Your task to perform on an android device: toggle pop-ups in chrome Image 0: 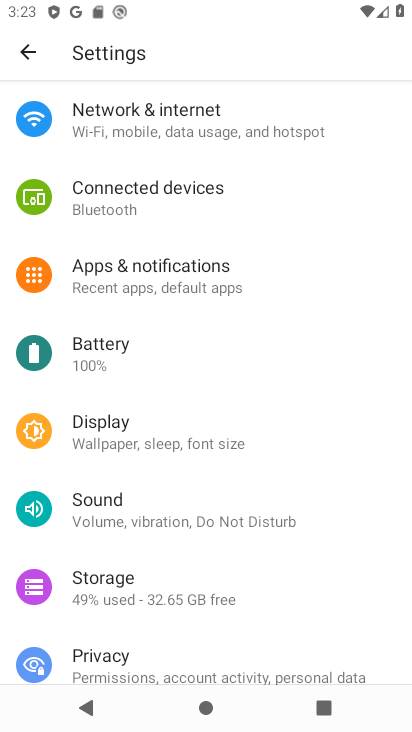
Step 0: press home button
Your task to perform on an android device: toggle pop-ups in chrome Image 1: 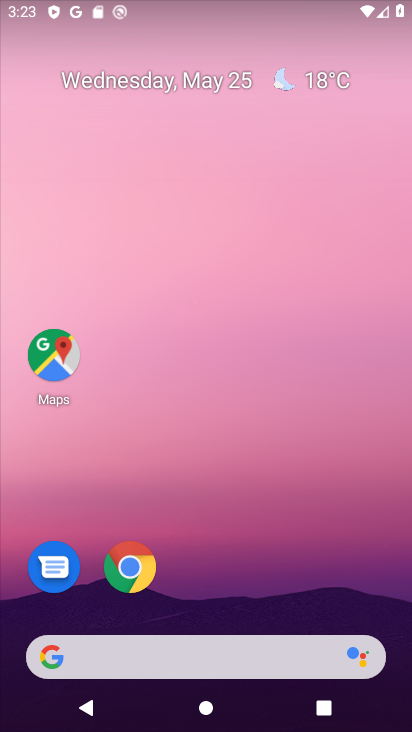
Step 1: drag from (363, 568) to (341, 74)
Your task to perform on an android device: toggle pop-ups in chrome Image 2: 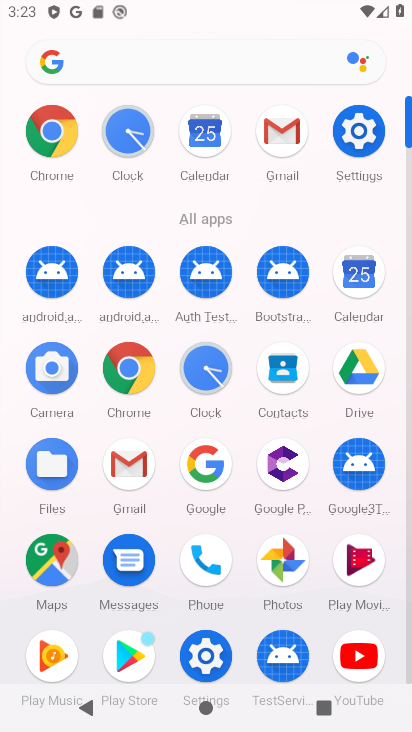
Step 2: click (138, 385)
Your task to perform on an android device: toggle pop-ups in chrome Image 3: 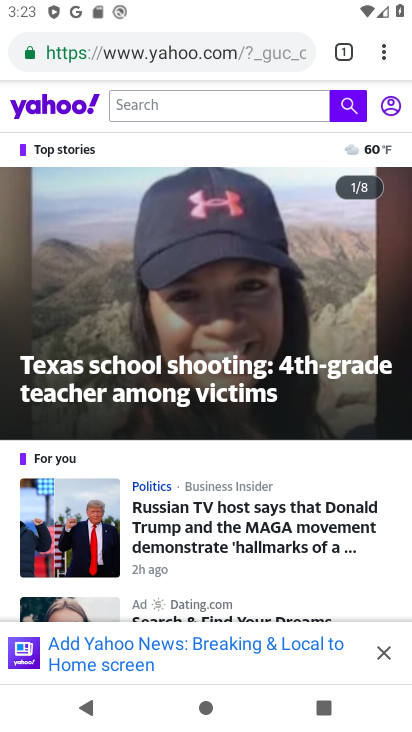
Step 3: click (381, 56)
Your task to perform on an android device: toggle pop-ups in chrome Image 4: 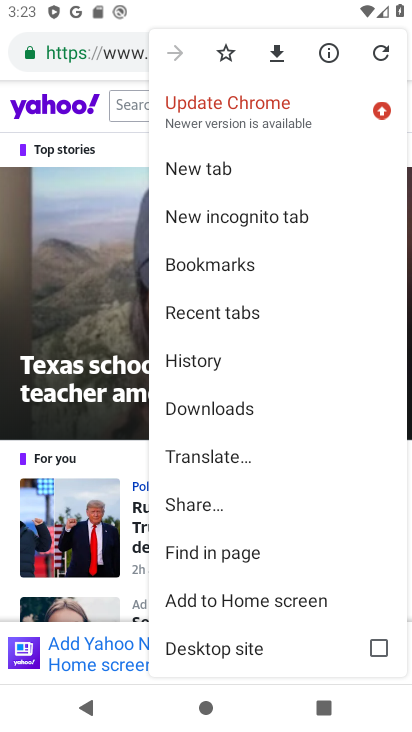
Step 4: drag from (338, 519) to (352, 375)
Your task to perform on an android device: toggle pop-ups in chrome Image 5: 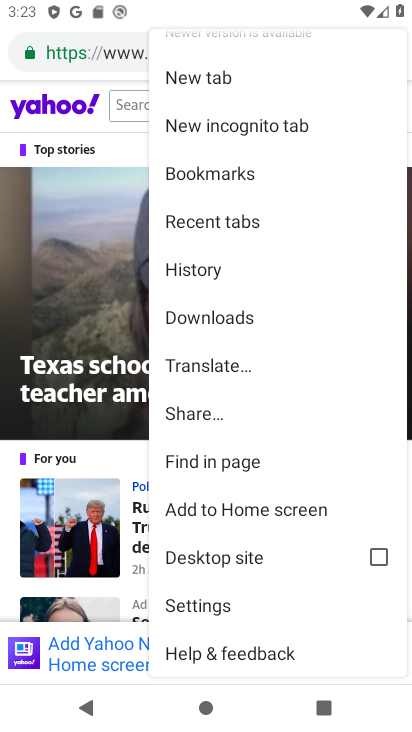
Step 5: drag from (331, 581) to (327, 380)
Your task to perform on an android device: toggle pop-ups in chrome Image 6: 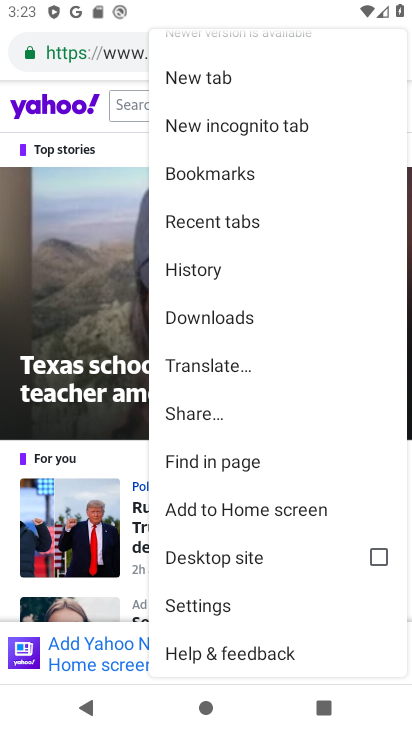
Step 6: click (235, 615)
Your task to perform on an android device: toggle pop-ups in chrome Image 7: 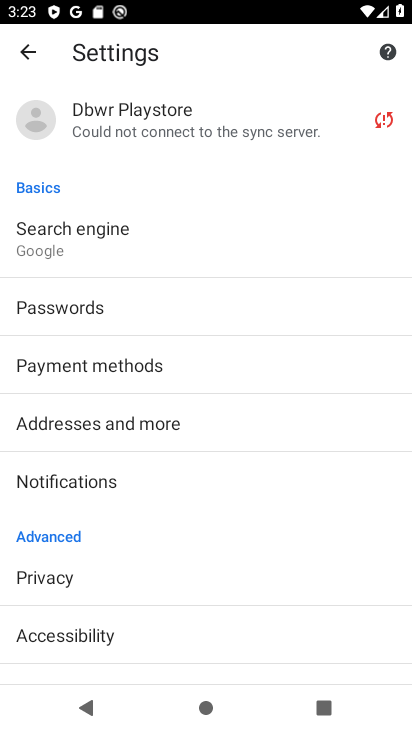
Step 7: drag from (268, 552) to (288, 418)
Your task to perform on an android device: toggle pop-ups in chrome Image 8: 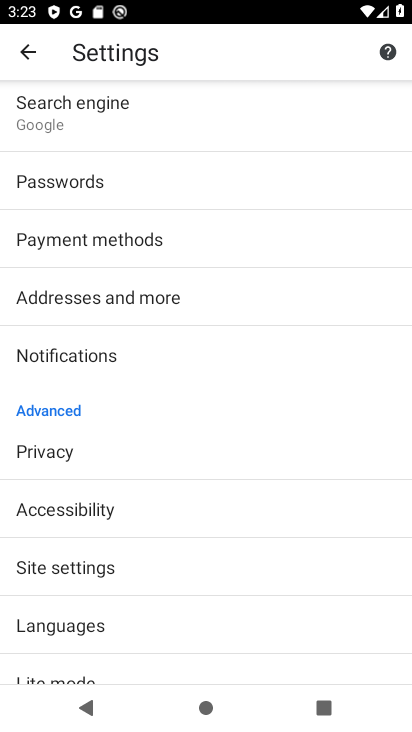
Step 8: drag from (310, 535) to (326, 416)
Your task to perform on an android device: toggle pop-ups in chrome Image 9: 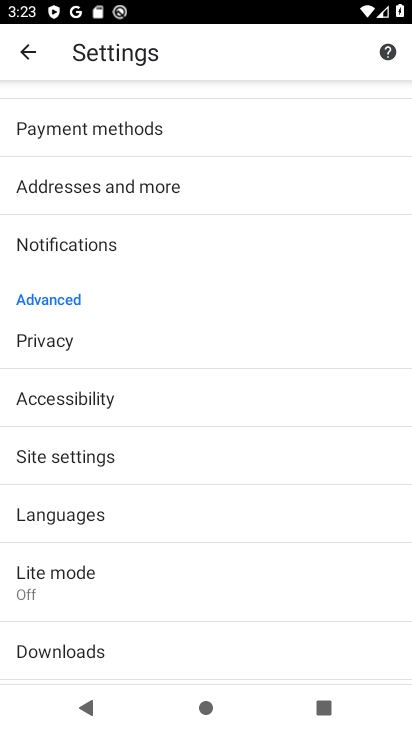
Step 9: drag from (311, 531) to (320, 427)
Your task to perform on an android device: toggle pop-ups in chrome Image 10: 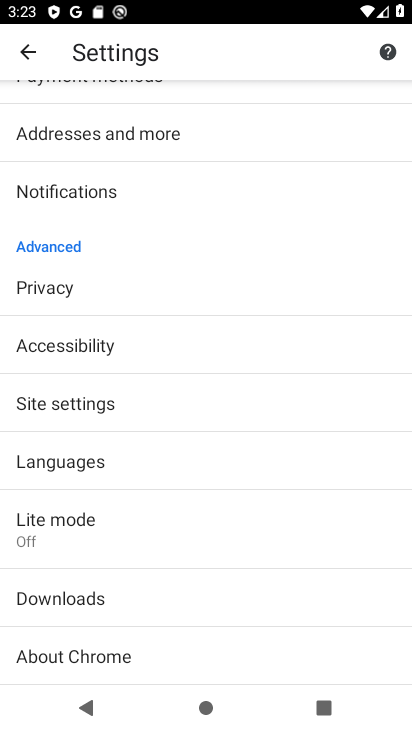
Step 10: click (295, 414)
Your task to perform on an android device: toggle pop-ups in chrome Image 11: 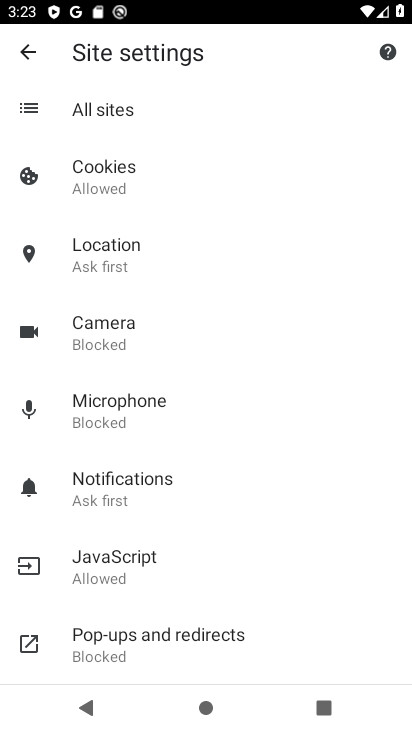
Step 11: drag from (292, 534) to (298, 377)
Your task to perform on an android device: toggle pop-ups in chrome Image 12: 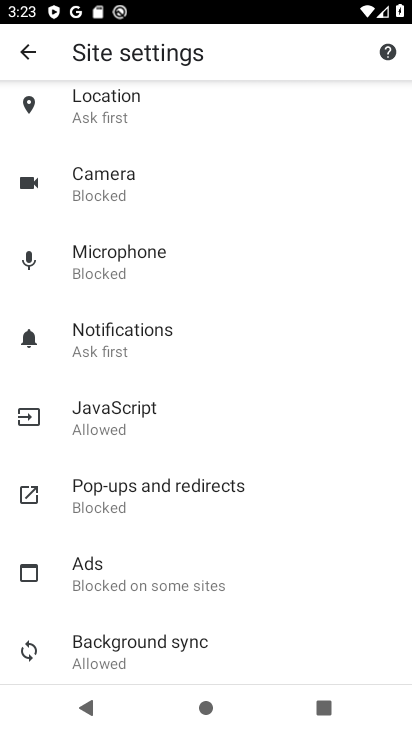
Step 12: drag from (307, 559) to (313, 453)
Your task to perform on an android device: toggle pop-ups in chrome Image 13: 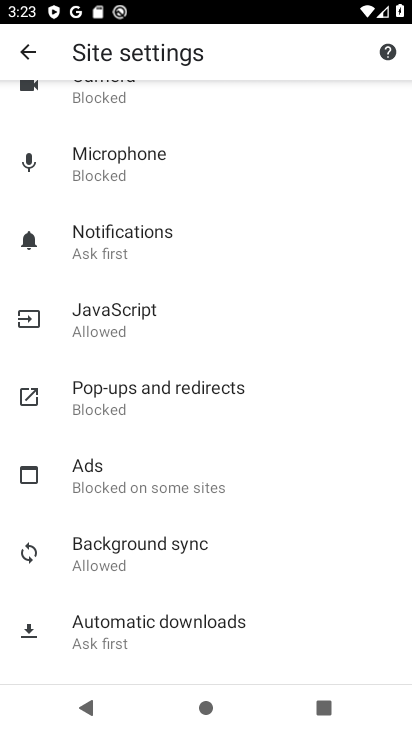
Step 13: click (268, 390)
Your task to perform on an android device: toggle pop-ups in chrome Image 14: 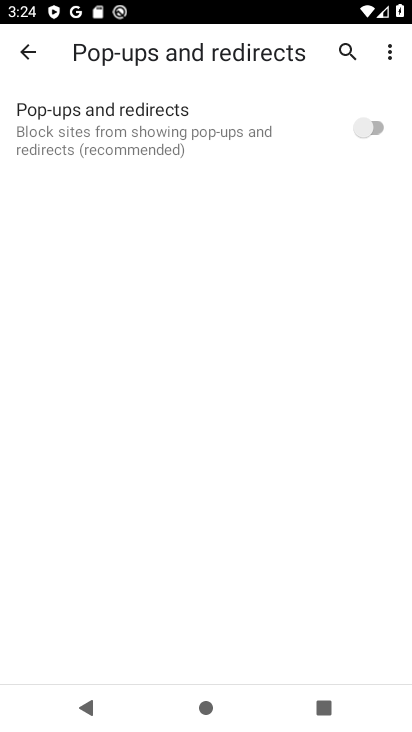
Step 14: click (350, 132)
Your task to perform on an android device: toggle pop-ups in chrome Image 15: 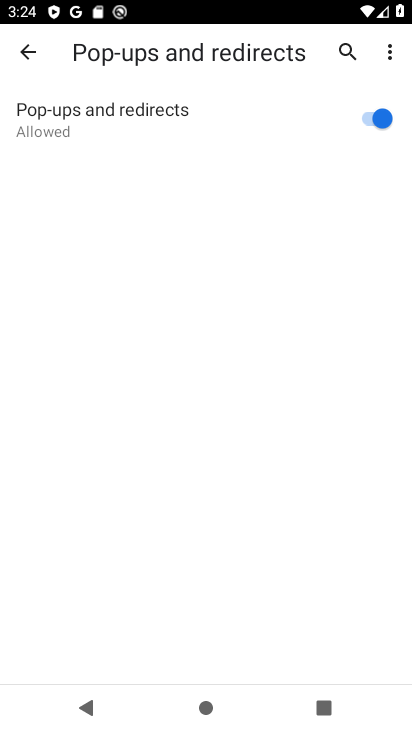
Step 15: task complete